Your task to perform on an android device: open app "Facebook" Image 0: 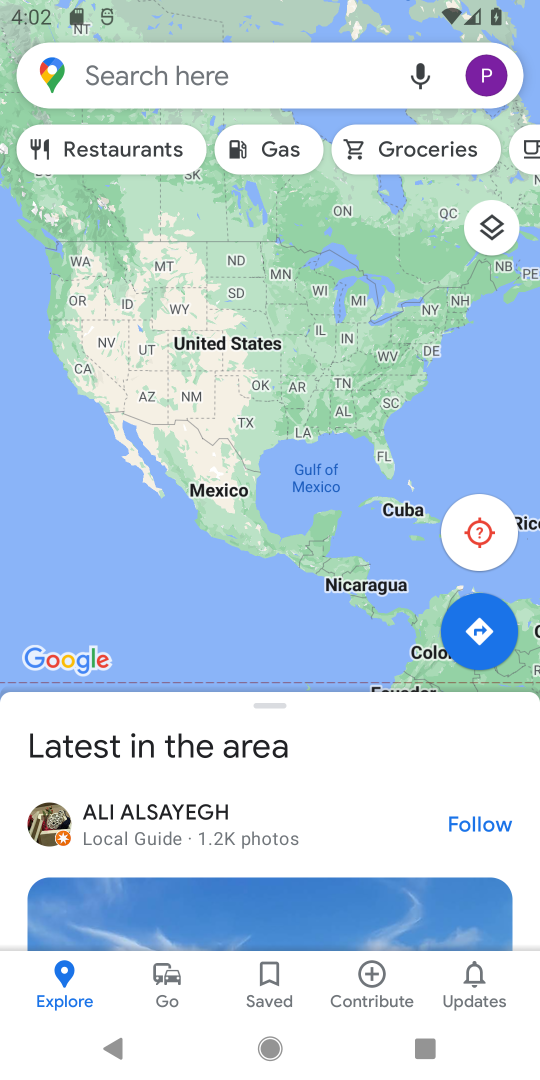
Step 0: press home button
Your task to perform on an android device: open app "Facebook" Image 1: 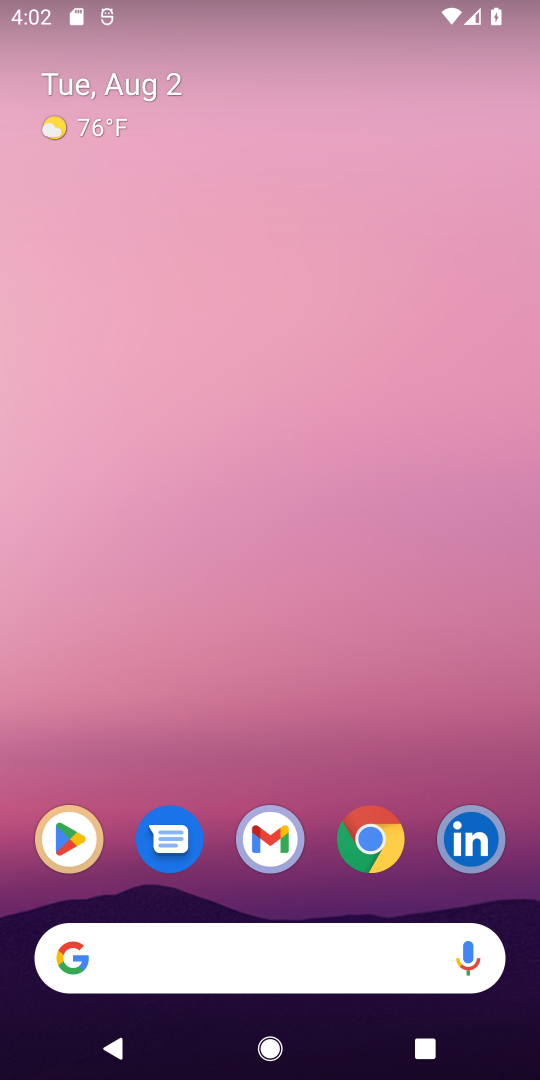
Step 1: click (64, 844)
Your task to perform on an android device: open app "Facebook" Image 2: 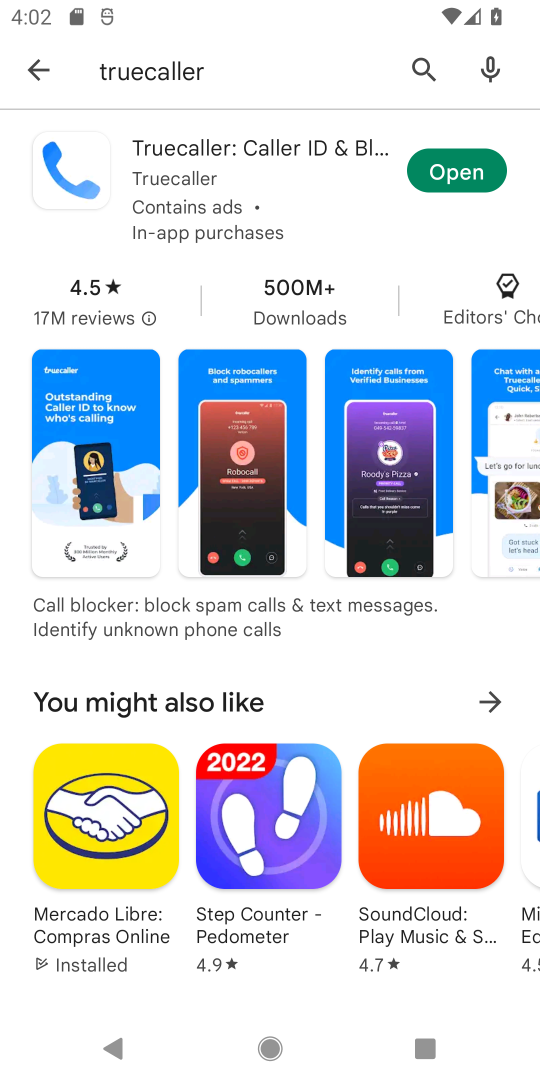
Step 2: click (426, 70)
Your task to perform on an android device: open app "Facebook" Image 3: 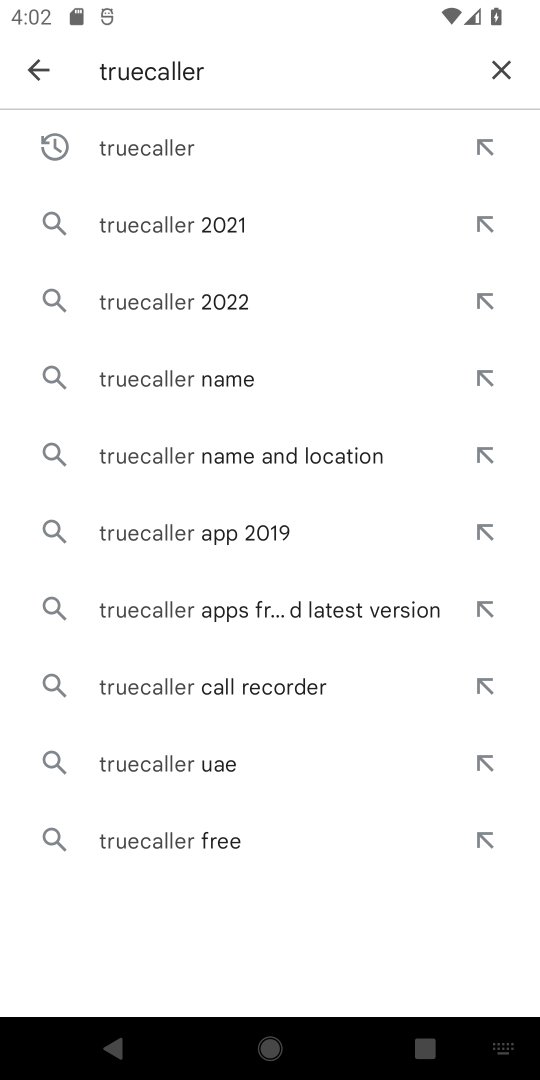
Step 3: click (486, 76)
Your task to perform on an android device: open app "Facebook" Image 4: 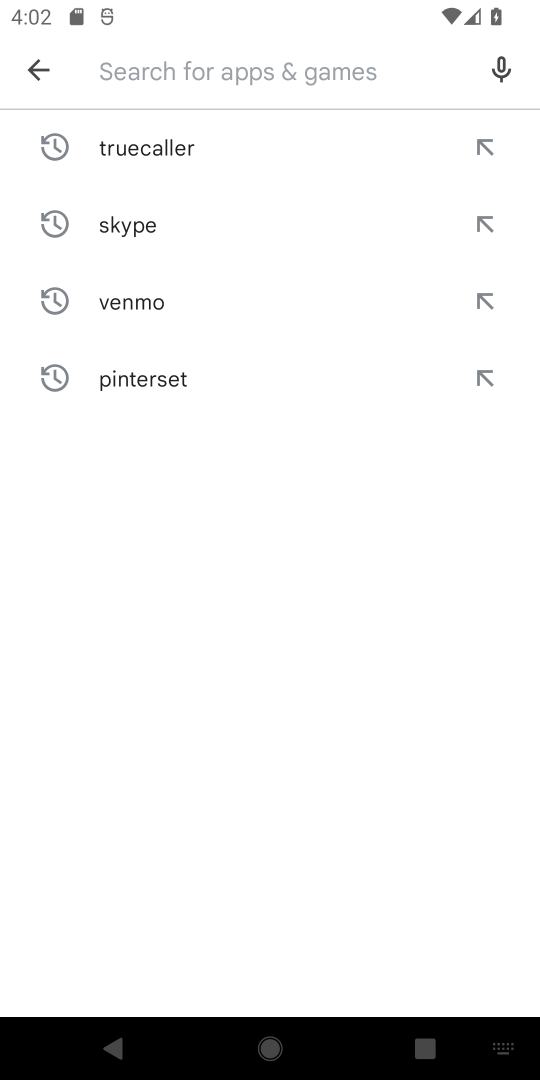
Step 4: type "facebook"
Your task to perform on an android device: open app "Facebook" Image 5: 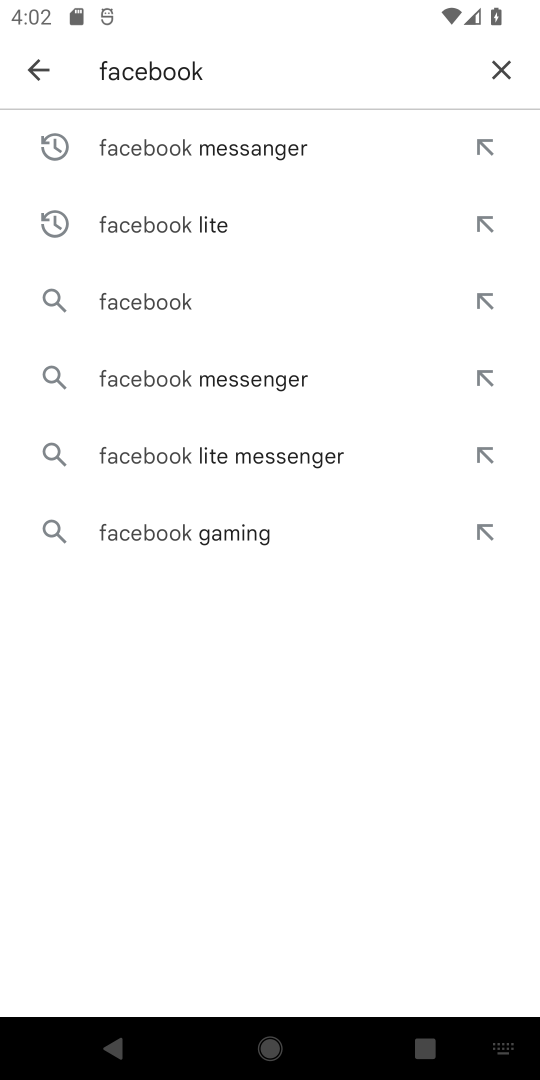
Step 5: click (245, 126)
Your task to perform on an android device: open app "Facebook" Image 6: 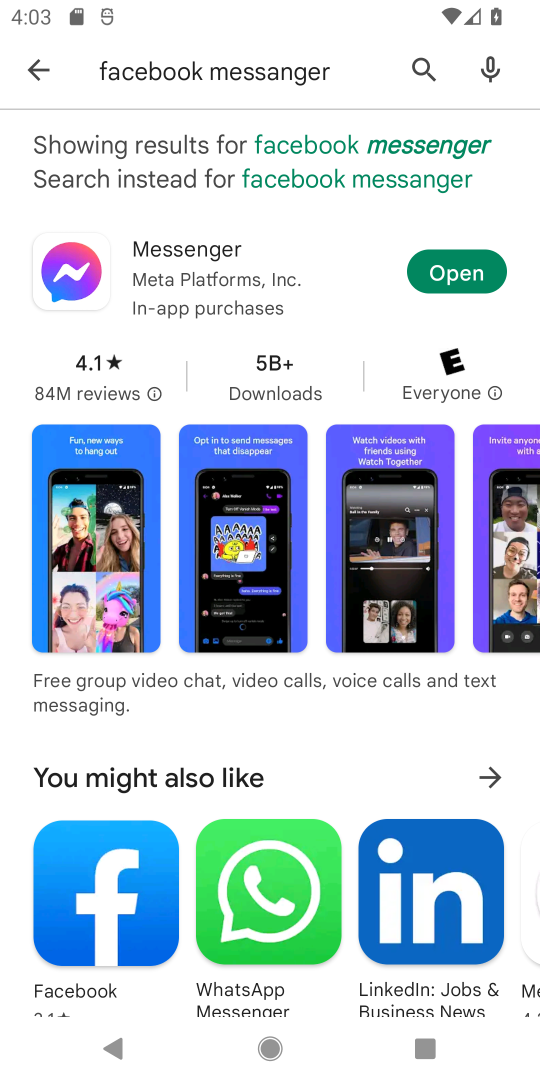
Step 6: click (433, 287)
Your task to perform on an android device: open app "Facebook" Image 7: 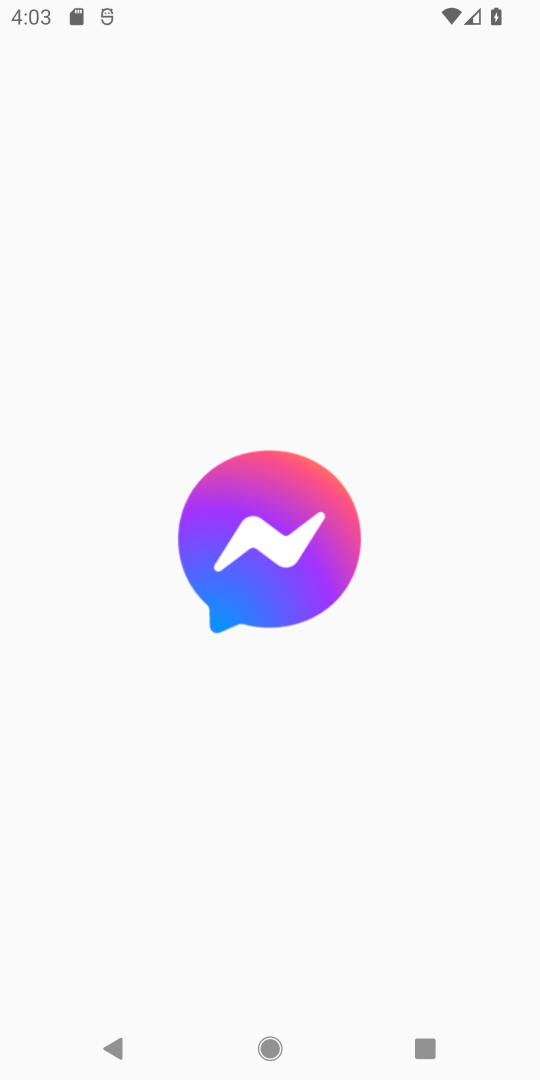
Step 7: task complete